Your task to perform on an android device: Show me popular games on the Play Store Image 0: 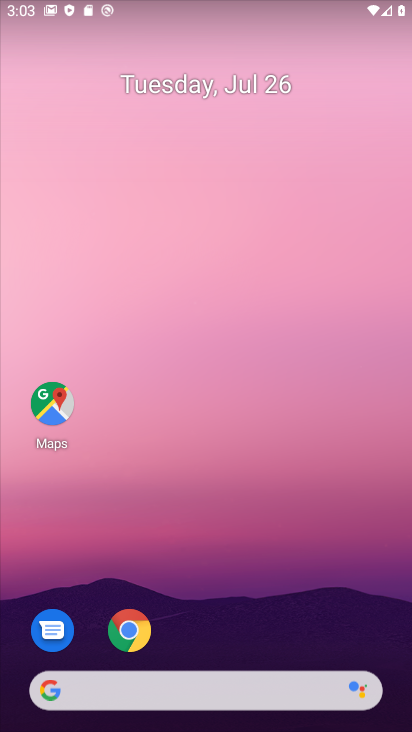
Step 0: drag from (190, 635) to (199, 261)
Your task to perform on an android device: Show me popular games on the Play Store Image 1: 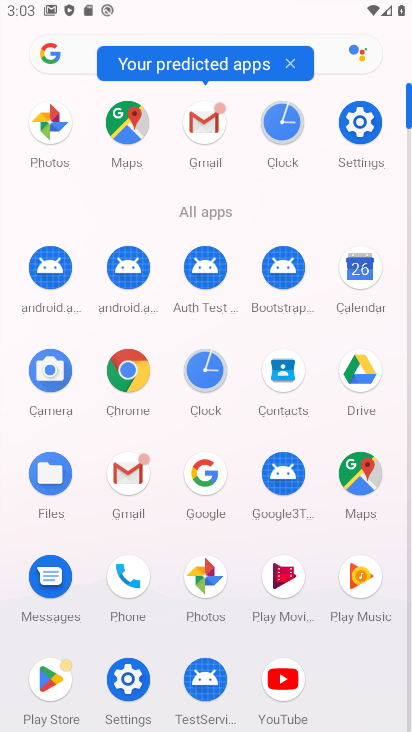
Step 1: click (59, 669)
Your task to perform on an android device: Show me popular games on the Play Store Image 2: 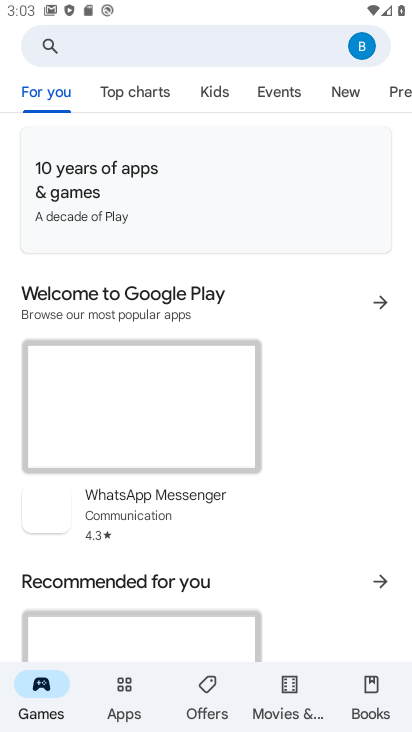
Step 2: click (155, 89)
Your task to perform on an android device: Show me popular games on the Play Store Image 3: 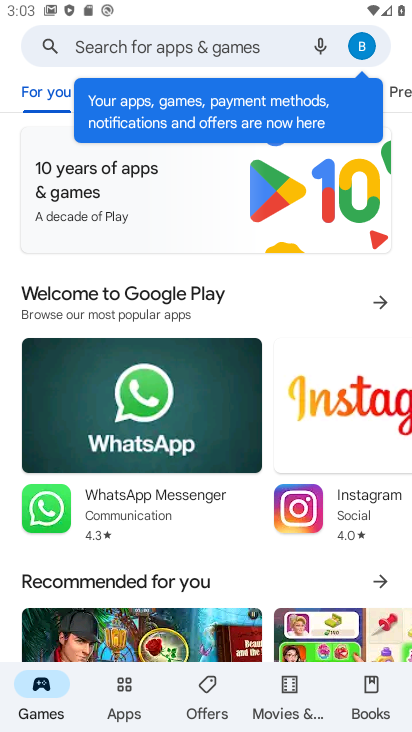
Step 3: click (17, 120)
Your task to perform on an android device: Show me popular games on the Play Store Image 4: 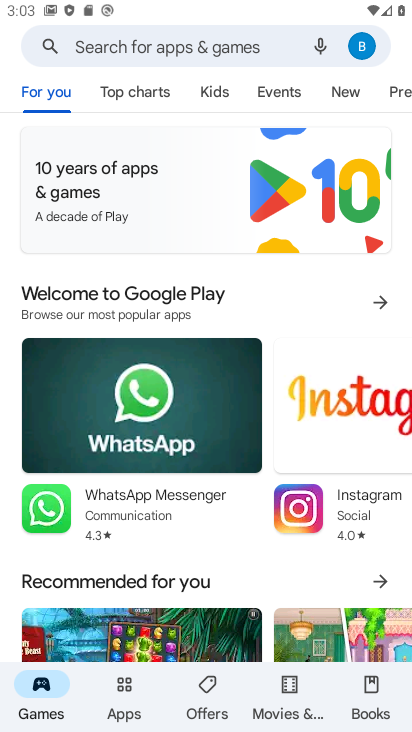
Step 4: click (98, 87)
Your task to perform on an android device: Show me popular games on the Play Store Image 5: 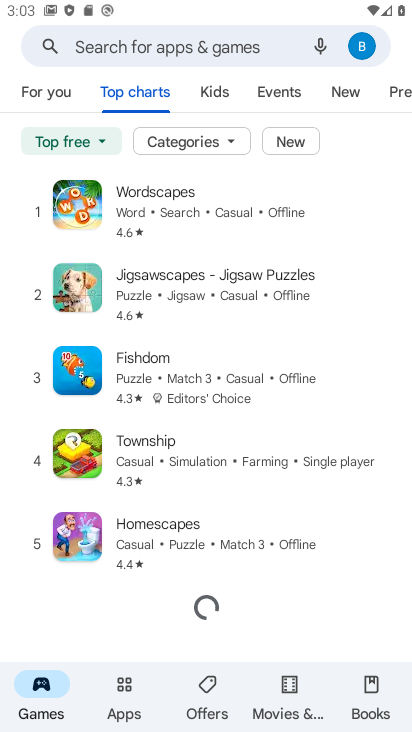
Step 5: task complete